Your task to perform on an android device: Do I have any events tomorrow? Image 0: 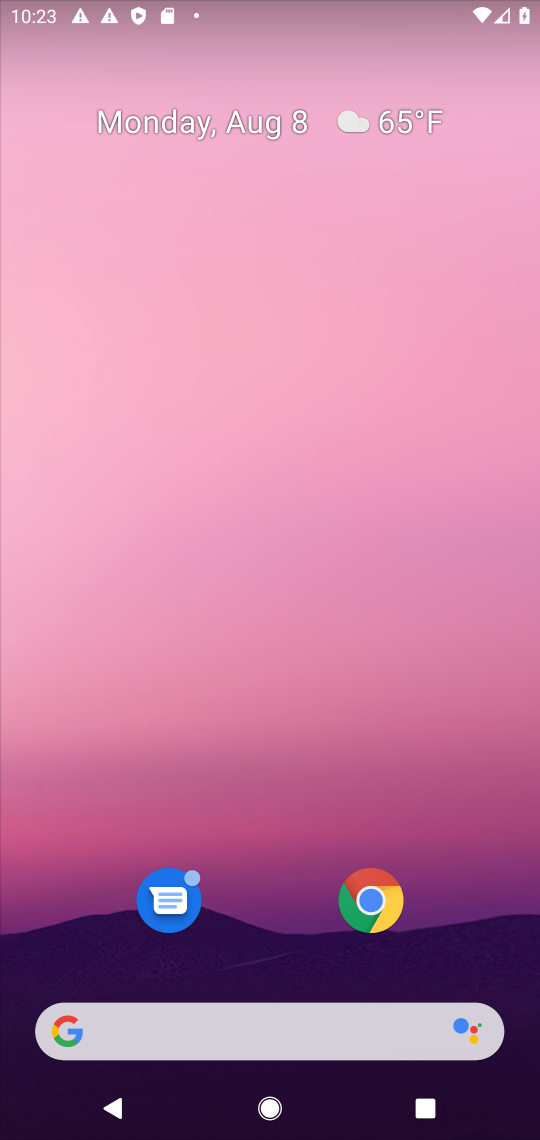
Step 0: drag from (228, 960) to (263, 329)
Your task to perform on an android device: Do I have any events tomorrow? Image 1: 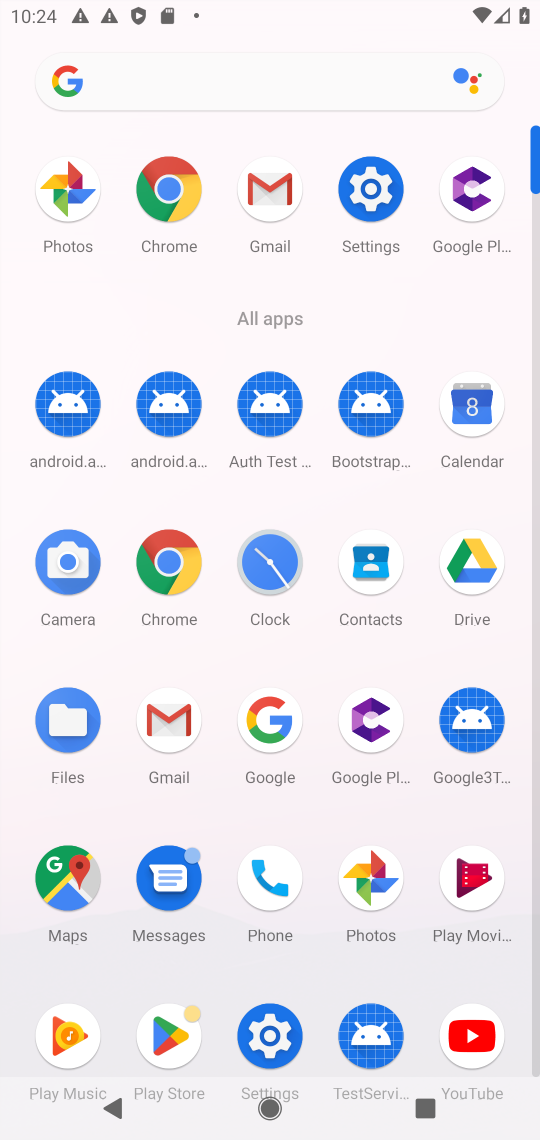
Step 1: click (471, 416)
Your task to perform on an android device: Do I have any events tomorrow? Image 2: 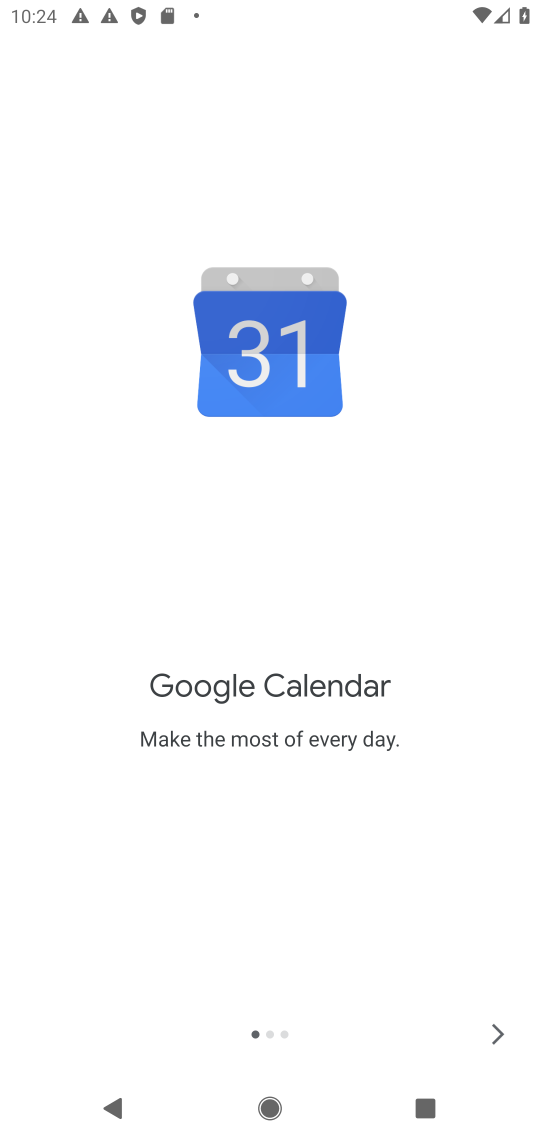
Step 2: click (496, 1038)
Your task to perform on an android device: Do I have any events tomorrow? Image 3: 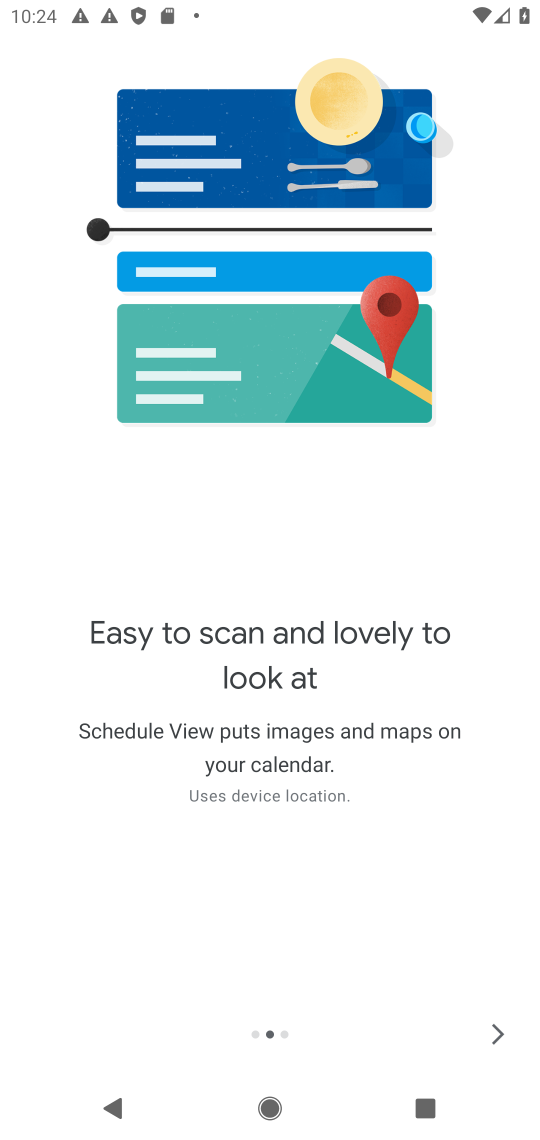
Step 3: click (496, 1038)
Your task to perform on an android device: Do I have any events tomorrow? Image 4: 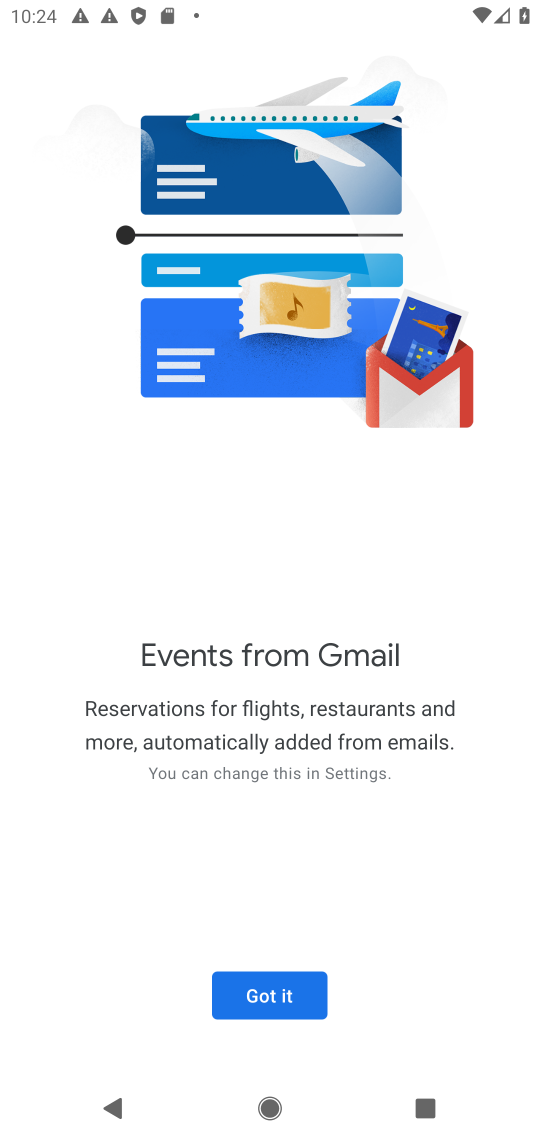
Step 4: click (284, 1003)
Your task to perform on an android device: Do I have any events tomorrow? Image 5: 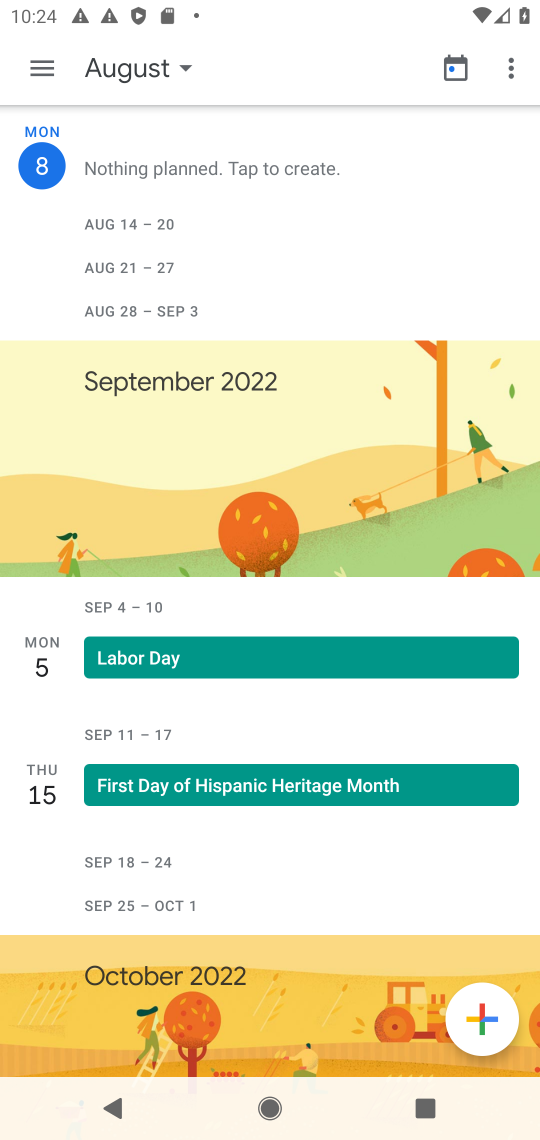
Step 5: click (40, 64)
Your task to perform on an android device: Do I have any events tomorrow? Image 6: 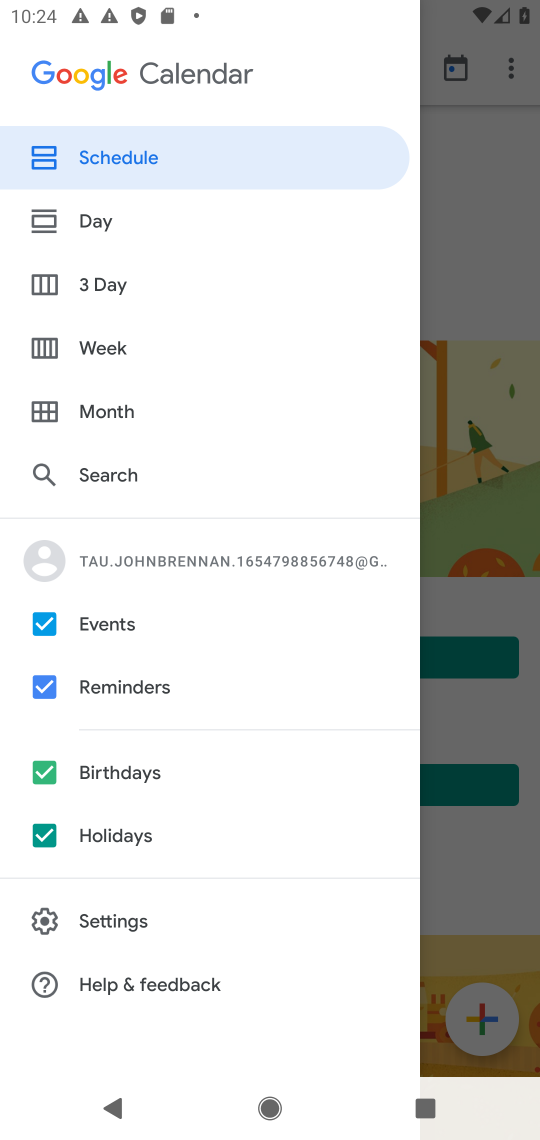
Step 6: click (96, 219)
Your task to perform on an android device: Do I have any events tomorrow? Image 7: 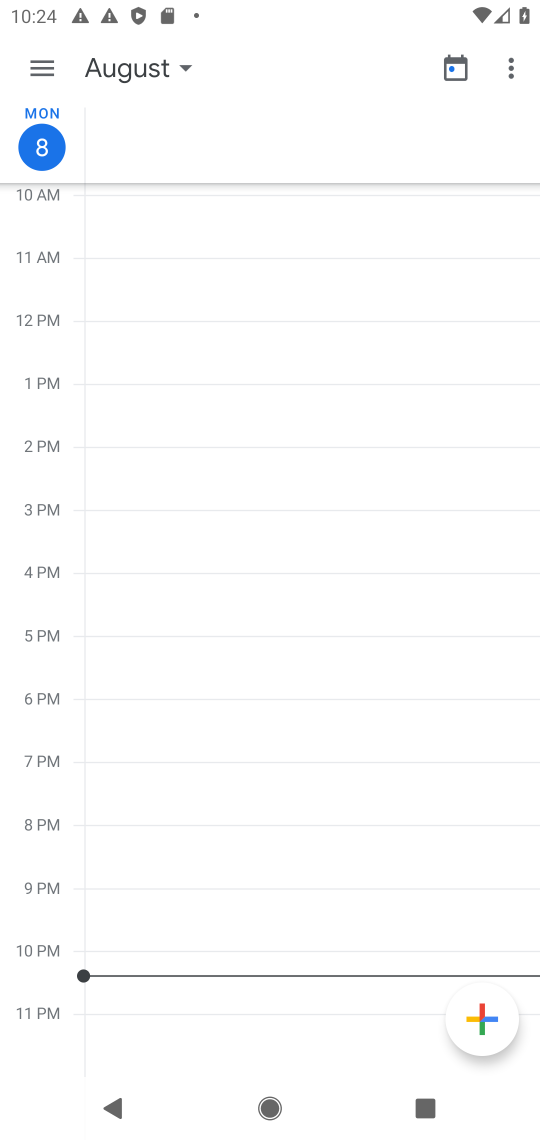
Step 7: click (110, 66)
Your task to perform on an android device: Do I have any events tomorrow? Image 8: 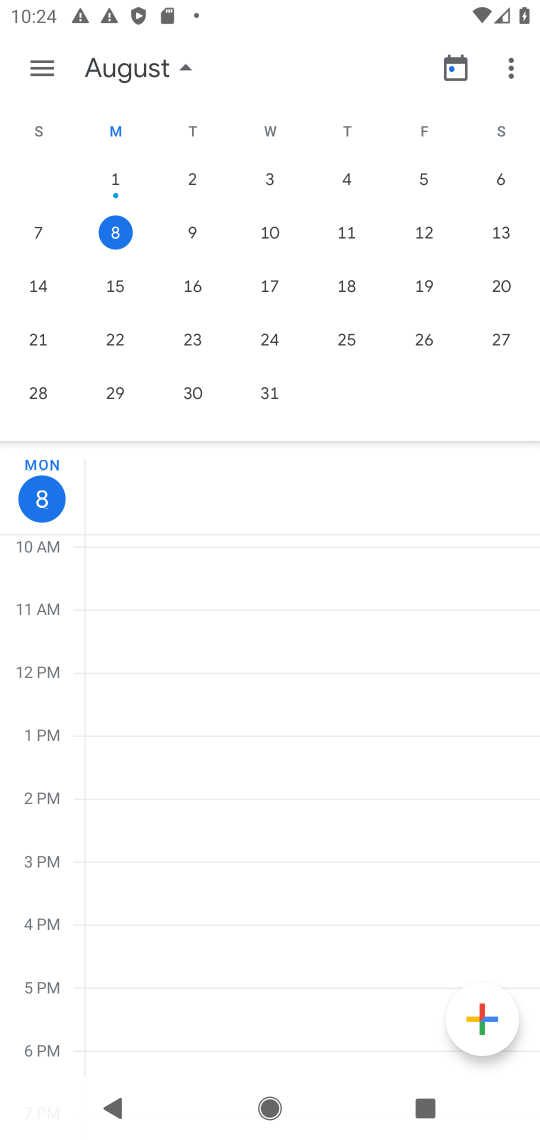
Step 8: click (199, 242)
Your task to perform on an android device: Do I have any events tomorrow? Image 9: 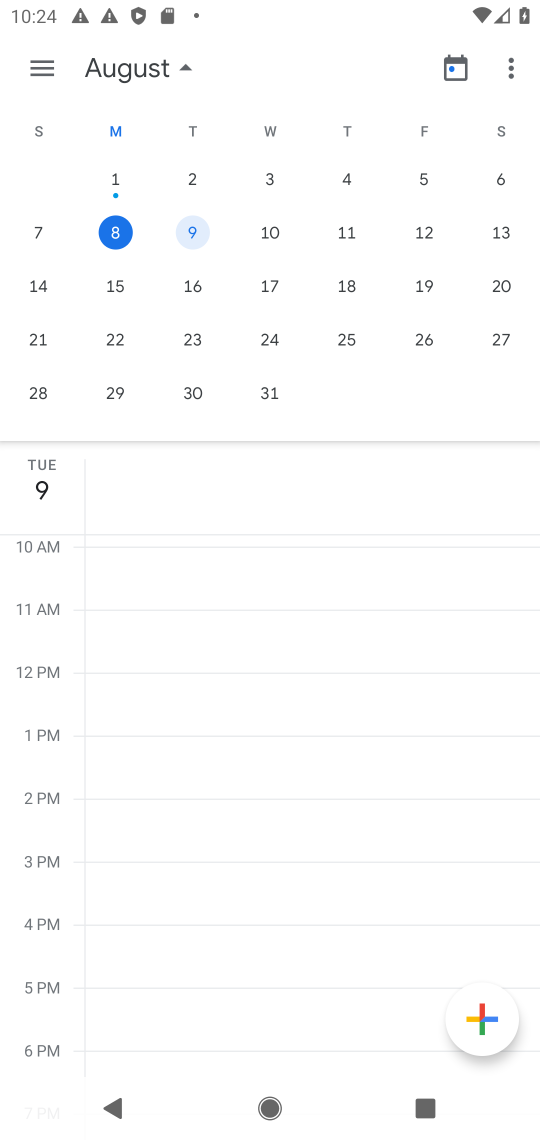
Step 9: task complete